Your task to perform on an android device: Open Google Maps and go to "Timeline" Image 0: 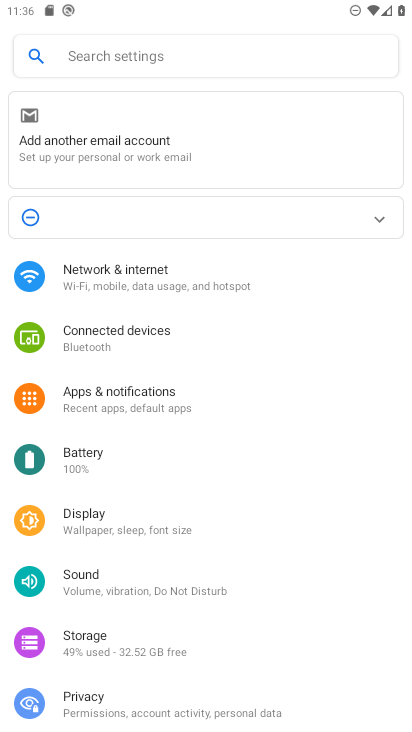
Step 0: press home button
Your task to perform on an android device: Open Google Maps and go to "Timeline" Image 1: 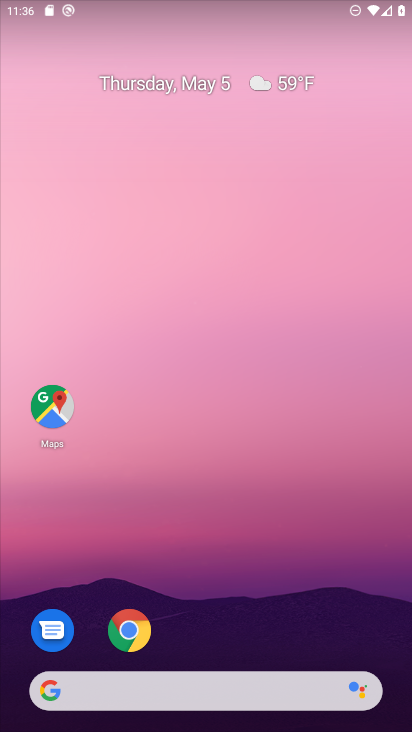
Step 1: click (57, 408)
Your task to perform on an android device: Open Google Maps and go to "Timeline" Image 2: 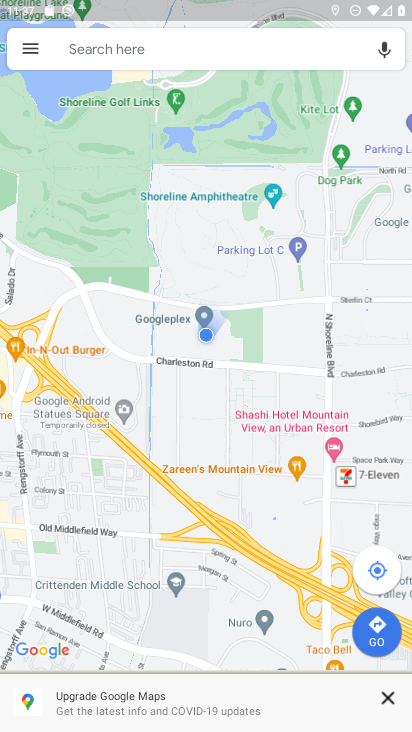
Step 2: click (25, 46)
Your task to perform on an android device: Open Google Maps and go to "Timeline" Image 3: 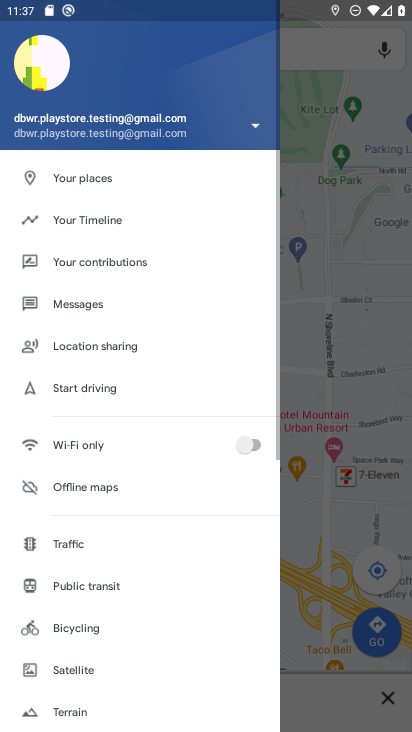
Step 3: click (93, 222)
Your task to perform on an android device: Open Google Maps and go to "Timeline" Image 4: 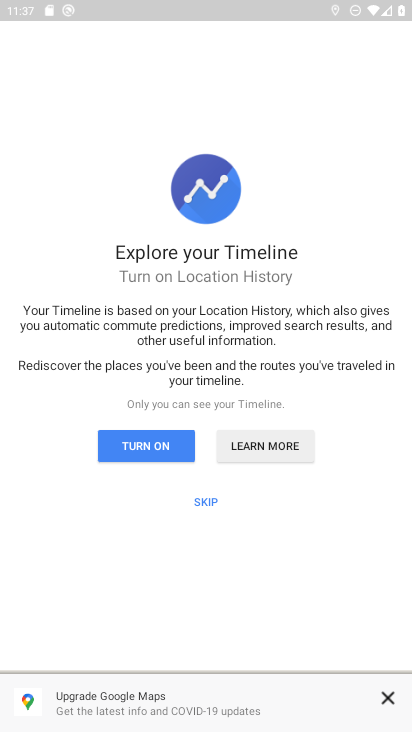
Step 4: click (155, 453)
Your task to perform on an android device: Open Google Maps and go to "Timeline" Image 5: 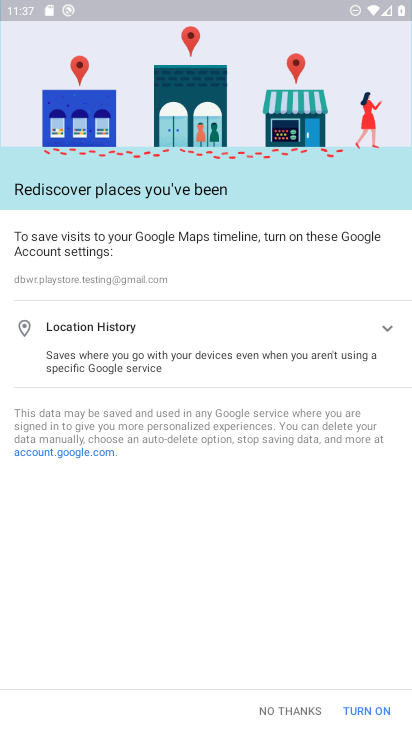
Step 5: click (272, 706)
Your task to perform on an android device: Open Google Maps and go to "Timeline" Image 6: 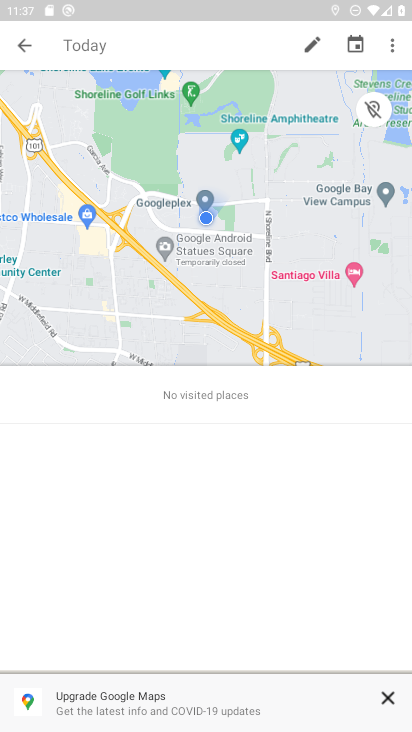
Step 6: task complete